Your task to perform on an android device: change text size in settings app Image 0: 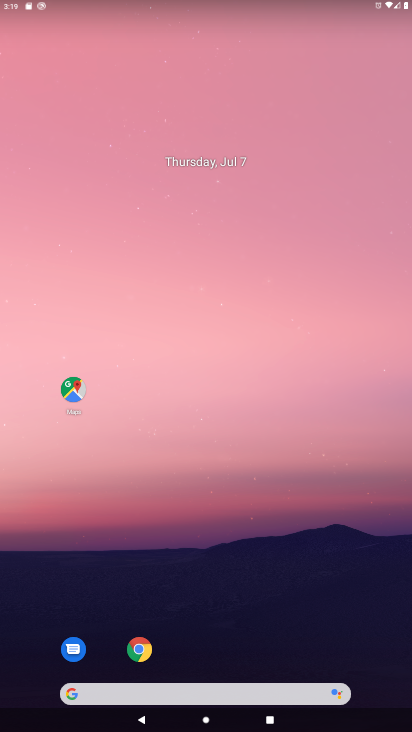
Step 0: drag from (190, 639) to (287, 1)
Your task to perform on an android device: change text size in settings app Image 1: 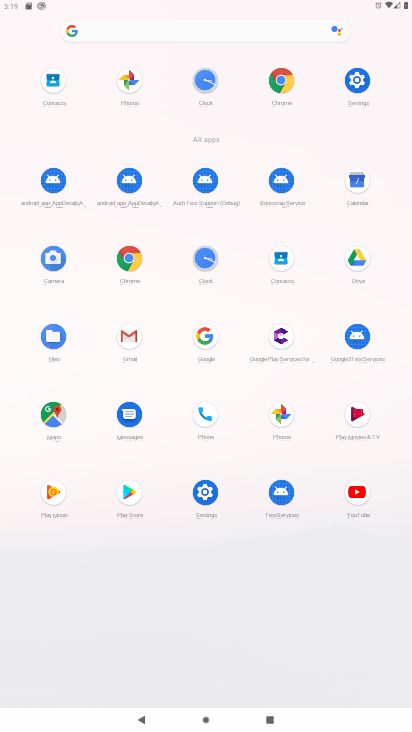
Step 1: click (354, 69)
Your task to perform on an android device: change text size in settings app Image 2: 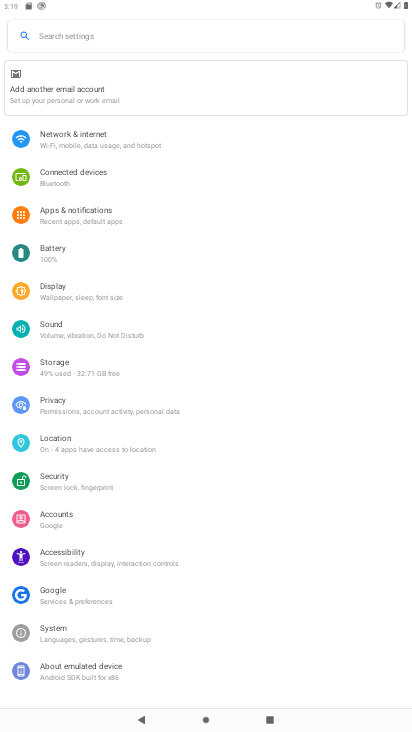
Step 2: click (83, 32)
Your task to perform on an android device: change text size in settings app Image 3: 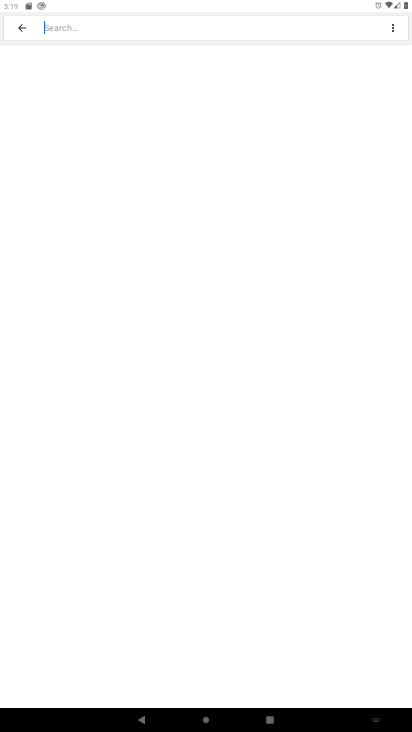
Step 3: type "text size"
Your task to perform on an android device: change text size in settings app Image 4: 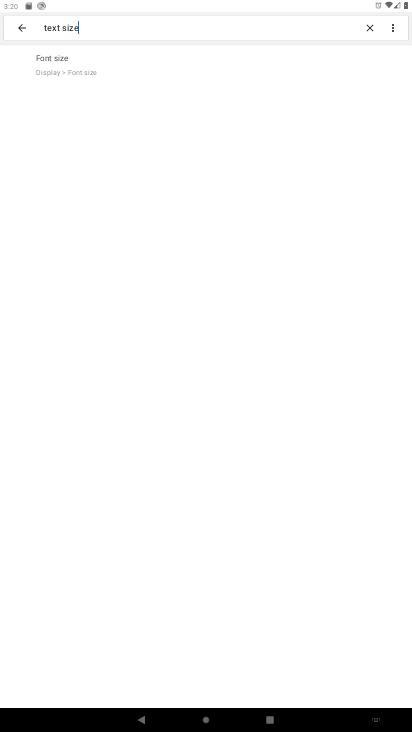
Step 4: click (88, 57)
Your task to perform on an android device: change text size in settings app Image 5: 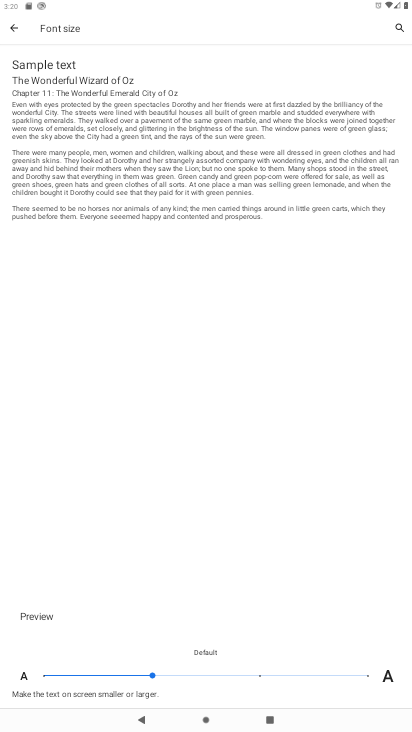
Step 5: task complete